Your task to perform on an android device: What's the weather? Image 0: 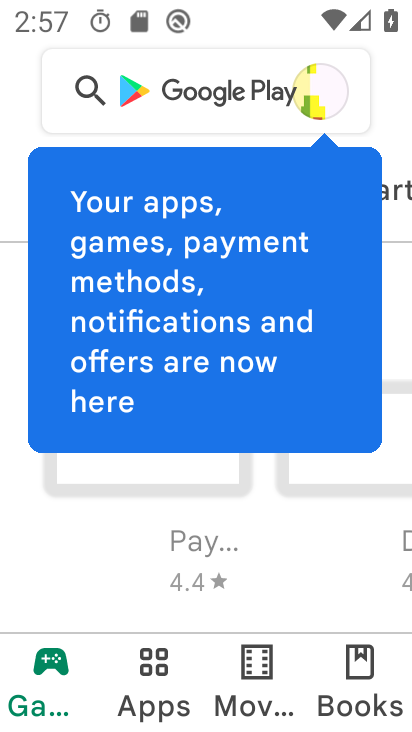
Step 0: press home button
Your task to perform on an android device: What's the weather? Image 1: 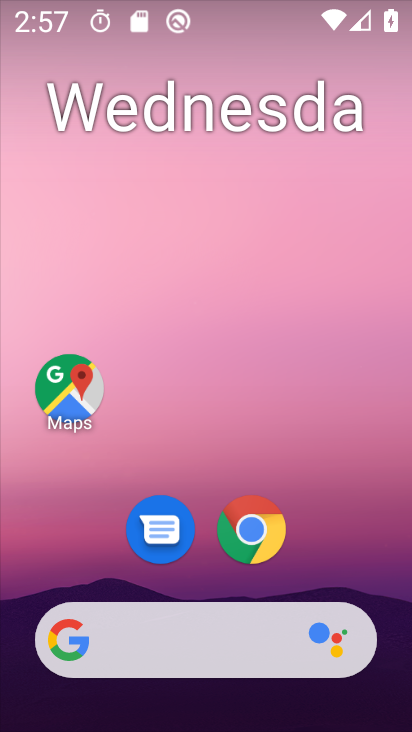
Step 1: drag from (326, 566) to (331, 136)
Your task to perform on an android device: What's the weather? Image 2: 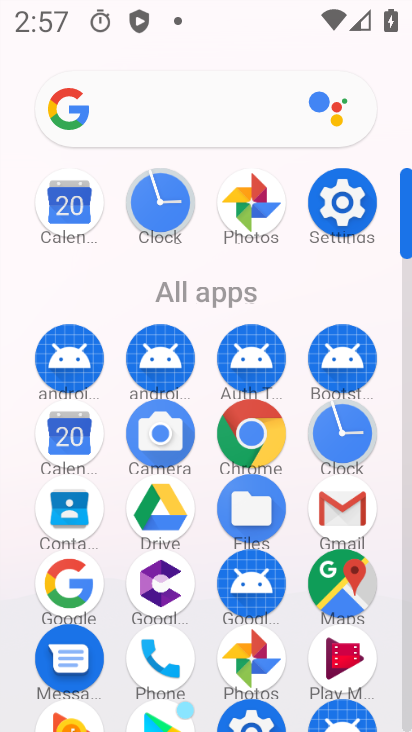
Step 2: click (131, 110)
Your task to perform on an android device: What's the weather? Image 3: 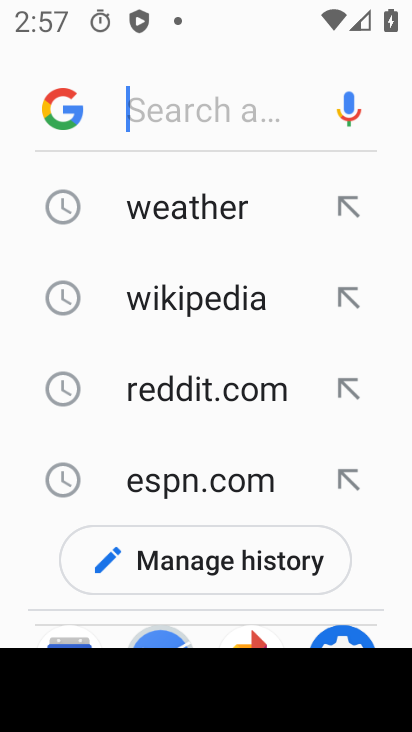
Step 3: type "weather"
Your task to perform on an android device: What's the weather? Image 4: 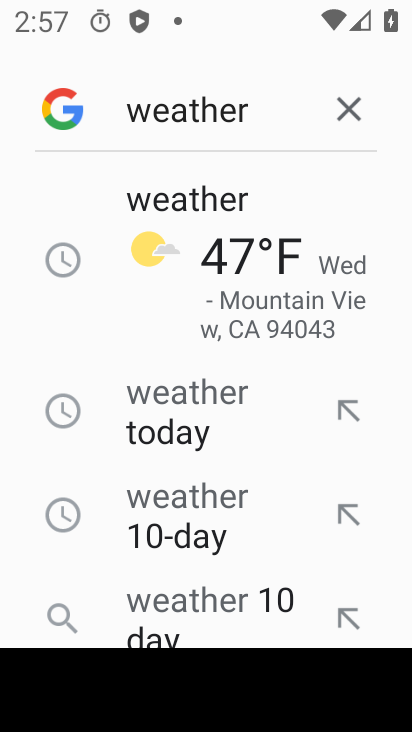
Step 4: click (256, 286)
Your task to perform on an android device: What's the weather? Image 5: 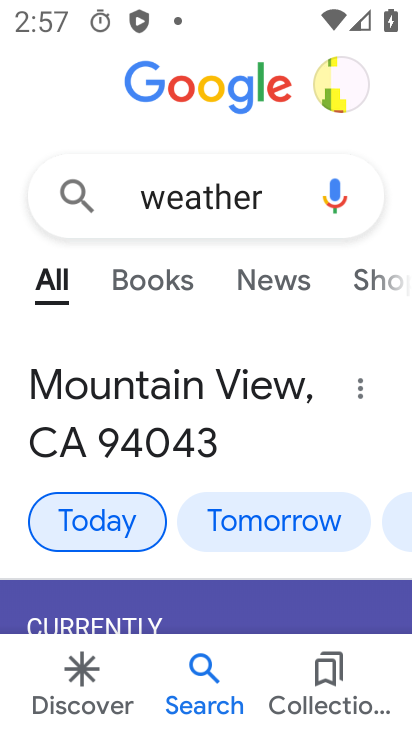
Step 5: task complete